Your task to perform on an android device: check out phone information Image 0: 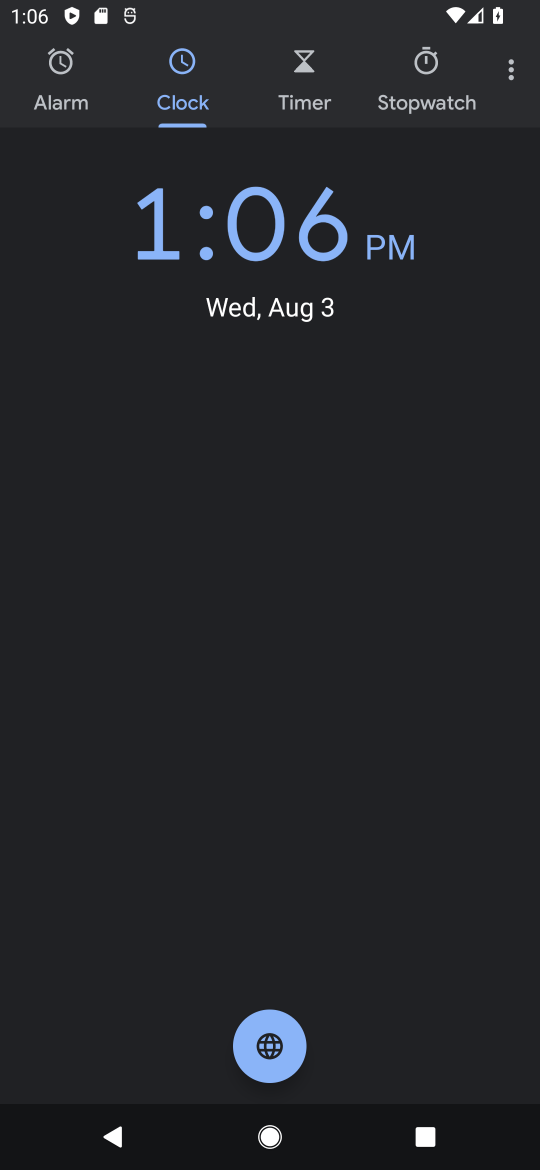
Step 0: press home button
Your task to perform on an android device: check out phone information Image 1: 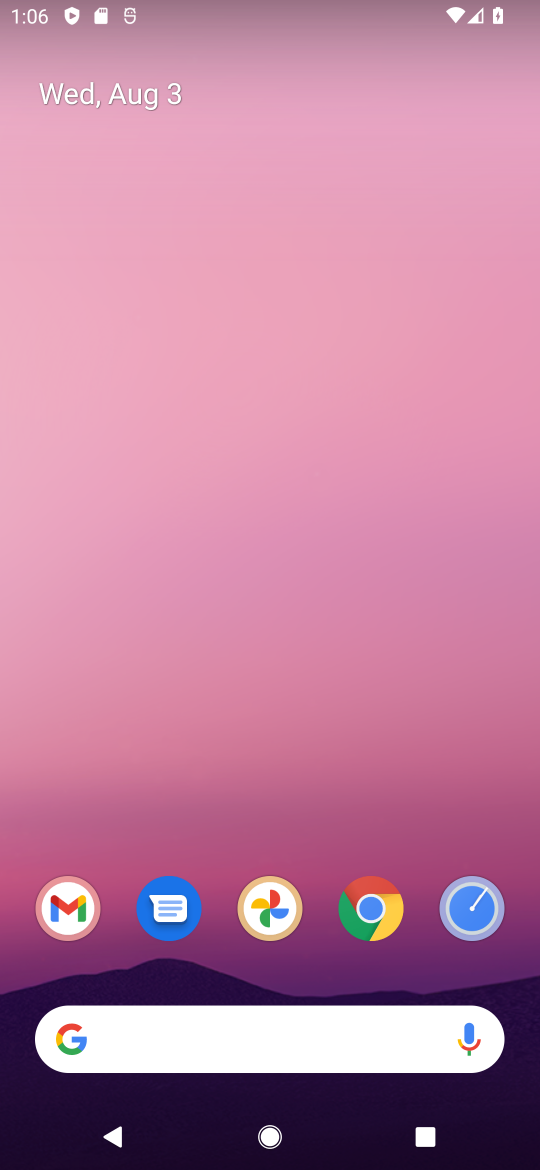
Step 1: drag from (280, 626) to (366, 0)
Your task to perform on an android device: check out phone information Image 2: 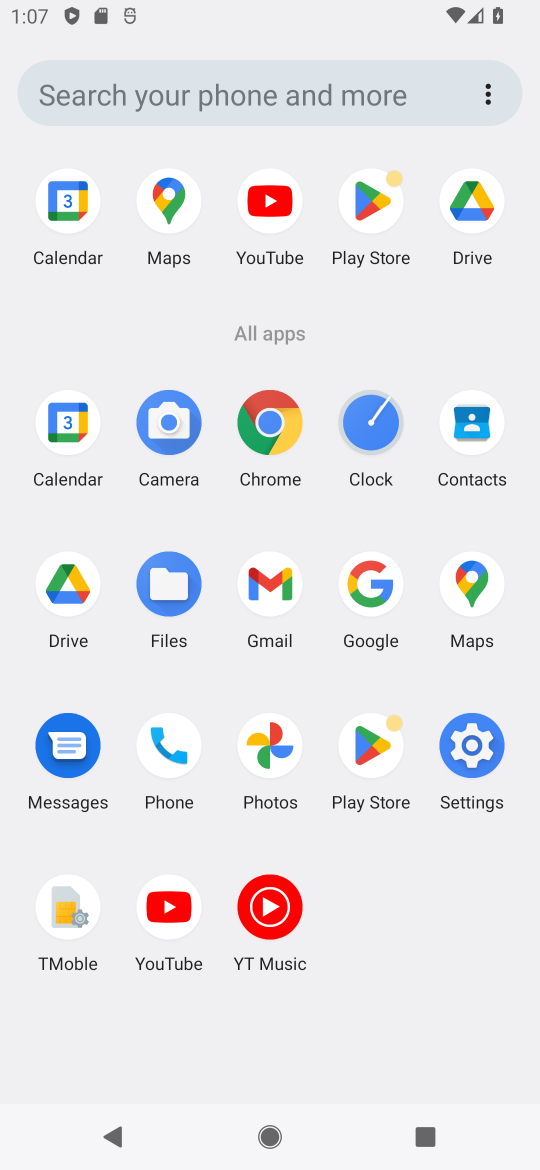
Step 2: click (444, 763)
Your task to perform on an android device: check out phone information Image 3: 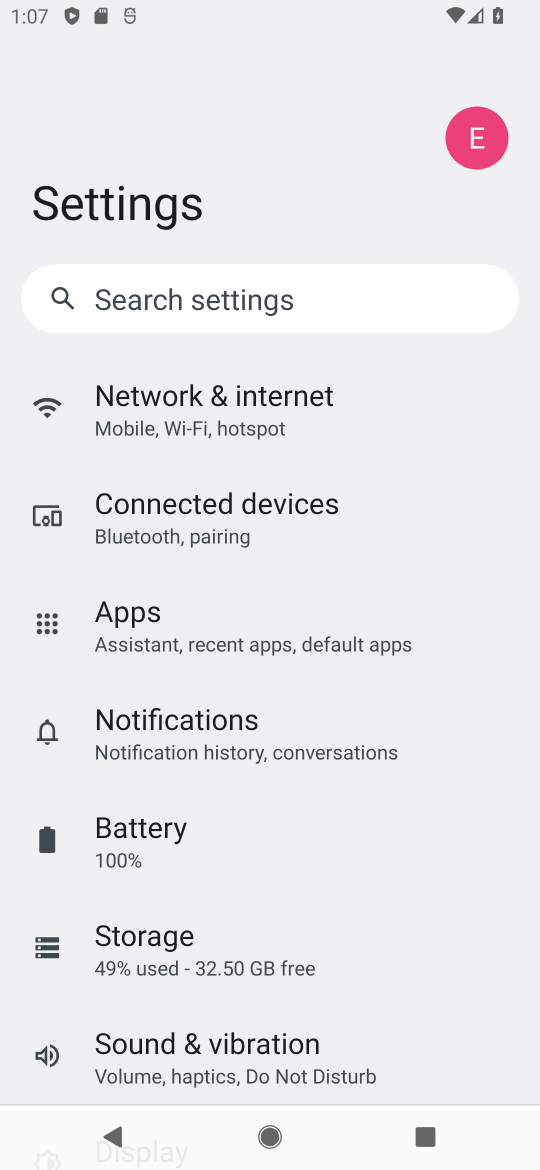
Step 3: drag from (319, 799) to (284, 424)
Your task to perform on an android device: check out phone information Image 4: 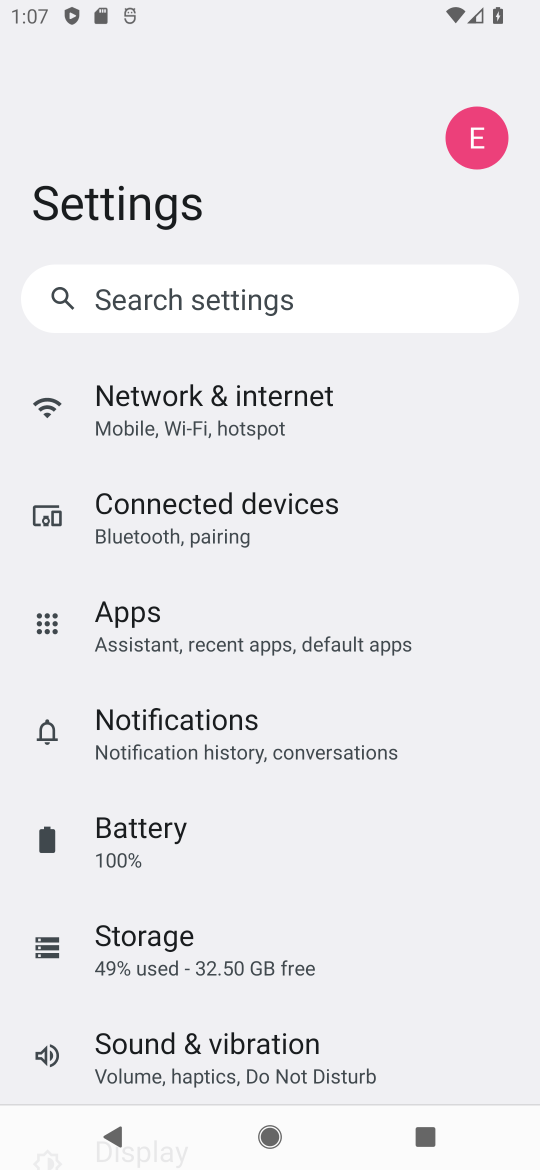
Step 4: drag from (207, 977) to (125, 150)
Your task to perform on an android device: check out phone information Image 5: 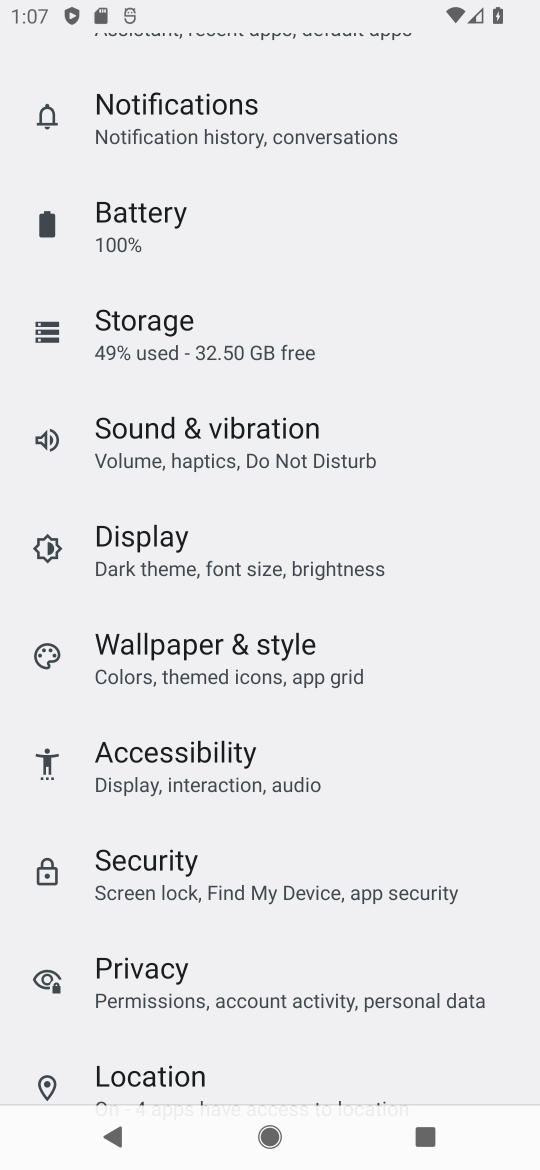
Step 5: click (165, 209)
Your task to perform on an android device: check out phone information Image 6: 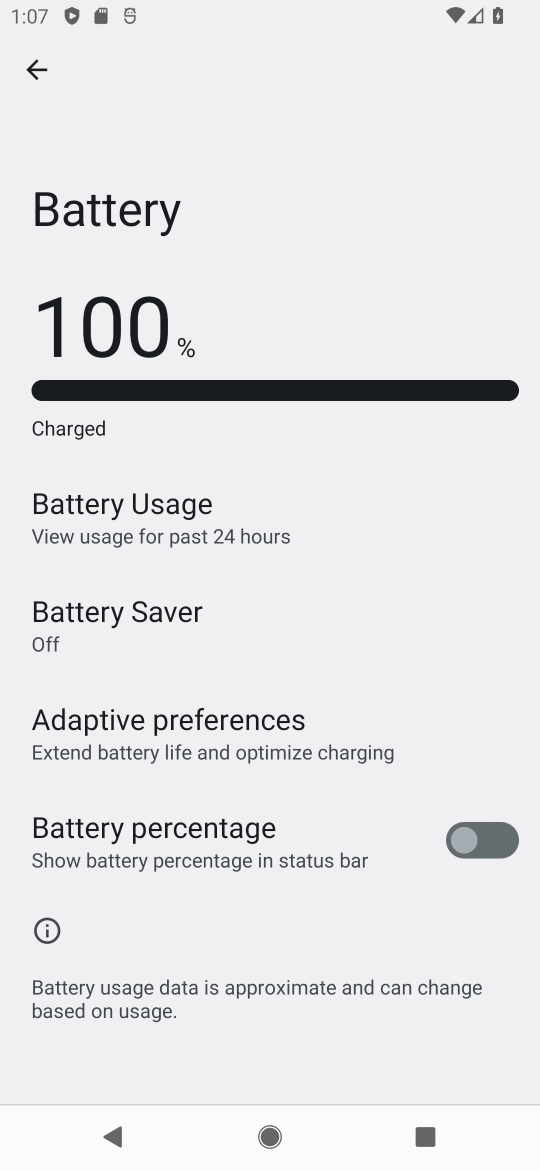
Step 6: click (54, 71)
Your task to perform on an android device: check out phone information Image 7: 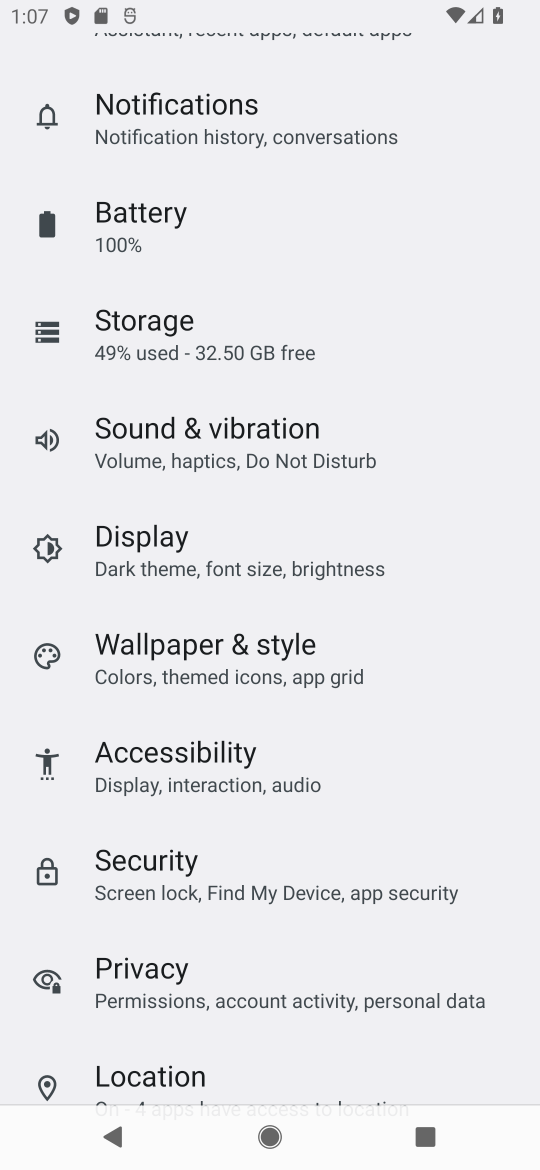
Step 7: drag from (225, 1032) to (208, 518)
Your task to perform on an android device: check out phone information Image 8: 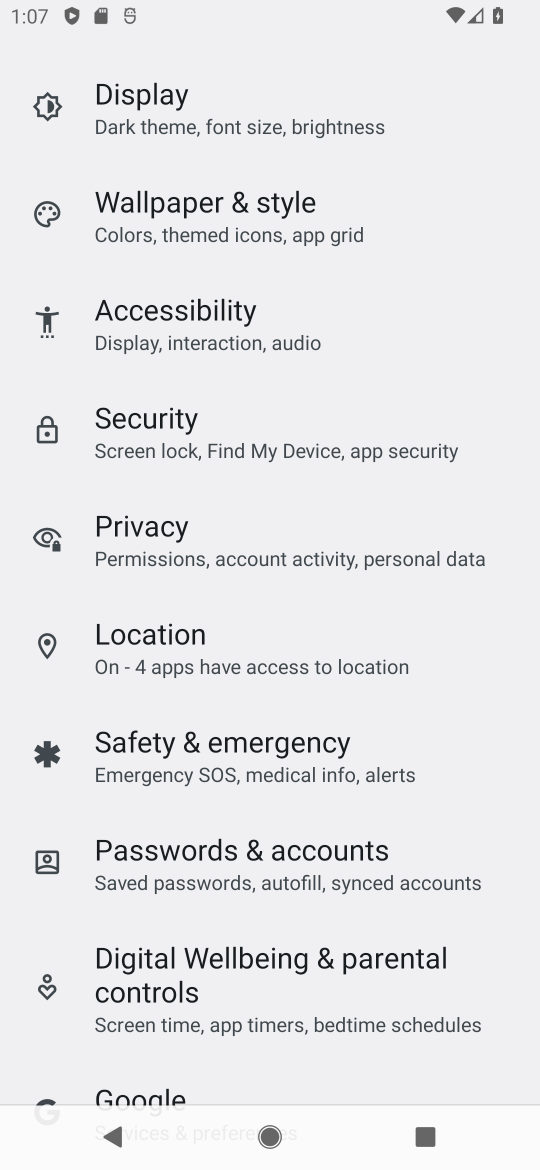
Step 8: drag from (237, 791) to (285, 408)
Your task to perform on an android device: check out phone information Image 9: 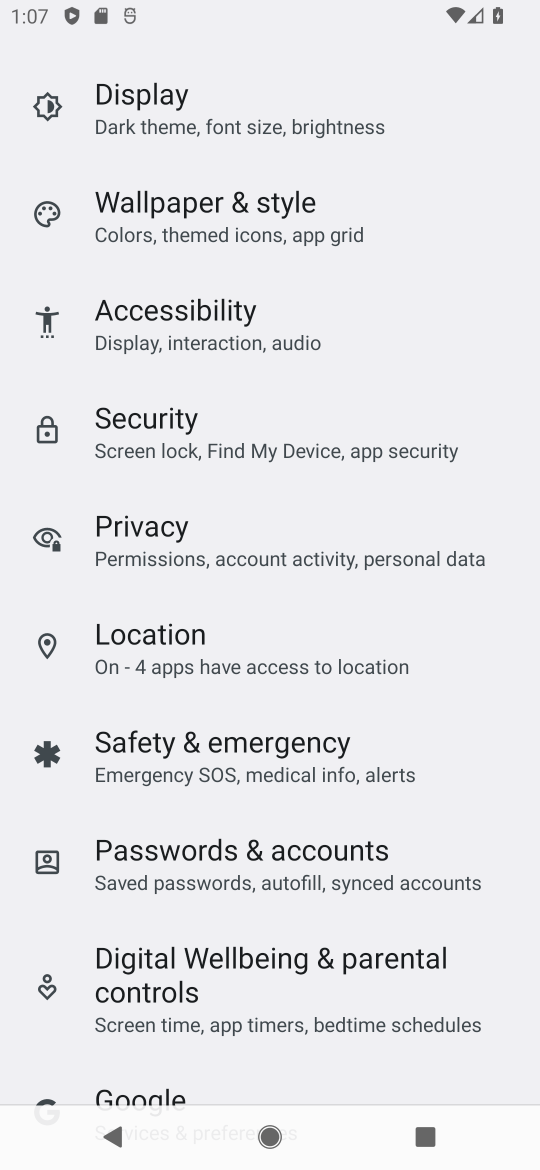
Step 9: drag from (233, 937) to (238, 657)
Your task to perform on an android device: check out phone information Image 10: 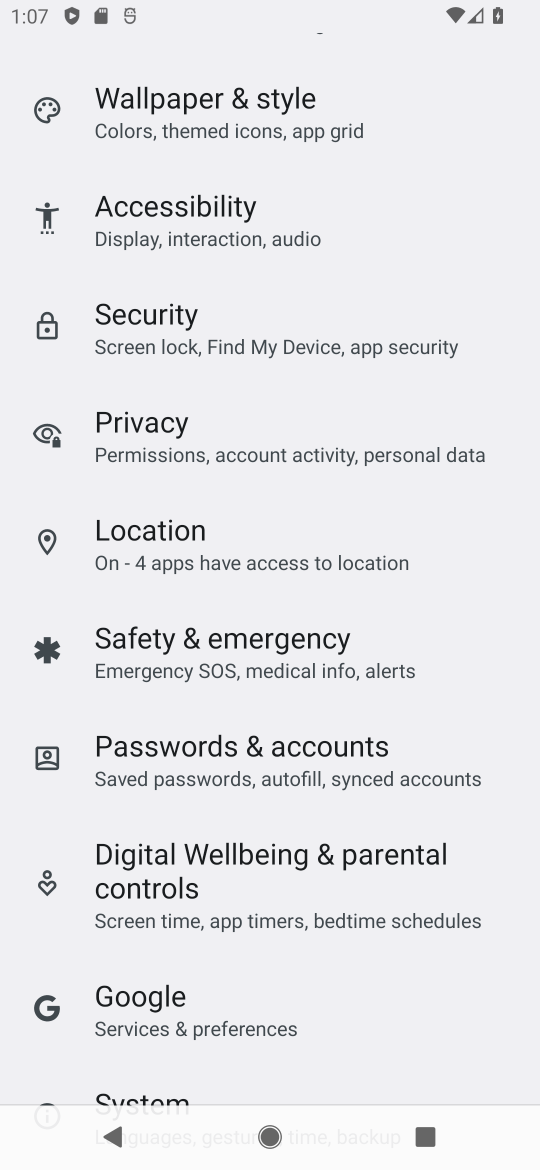
Step 10: drag from (209, 1037) to (292, 415)
Your task to perform on an android device: check out phone information Image 11: 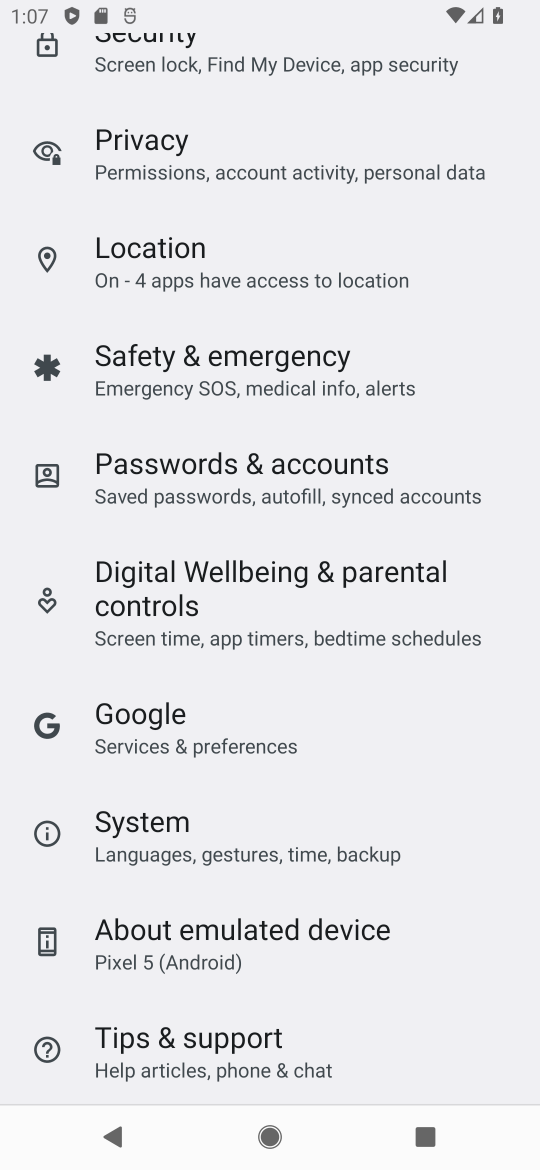
Step 11: drag from (268, 817) to (262, 426)
Your task to perform on an android device: check out phone information Image 12: 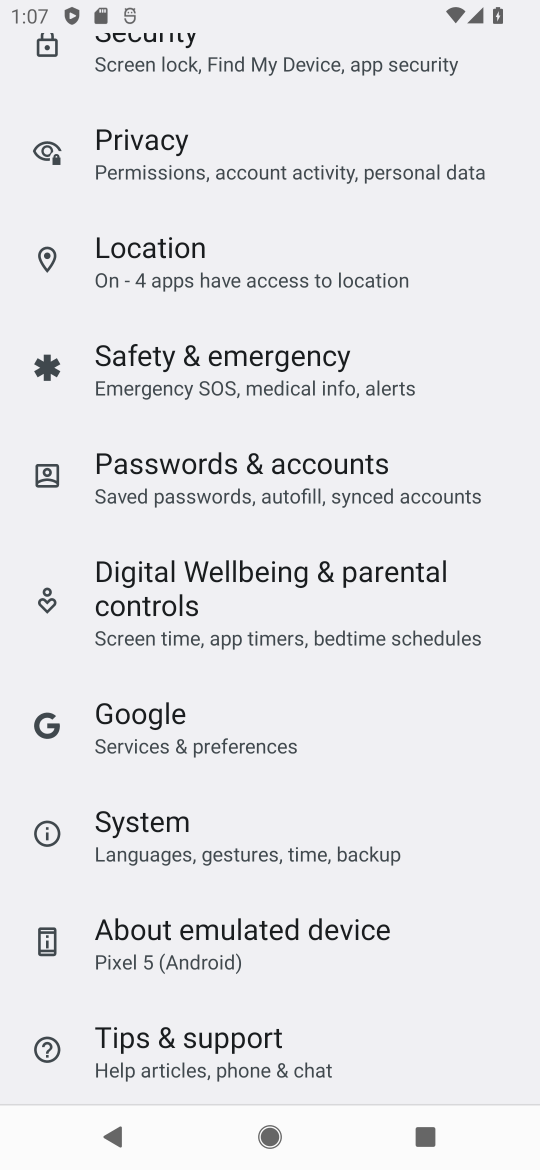
Step 12: click (242, 945)
Your task to perform on an android device: check out phone information Image 13: 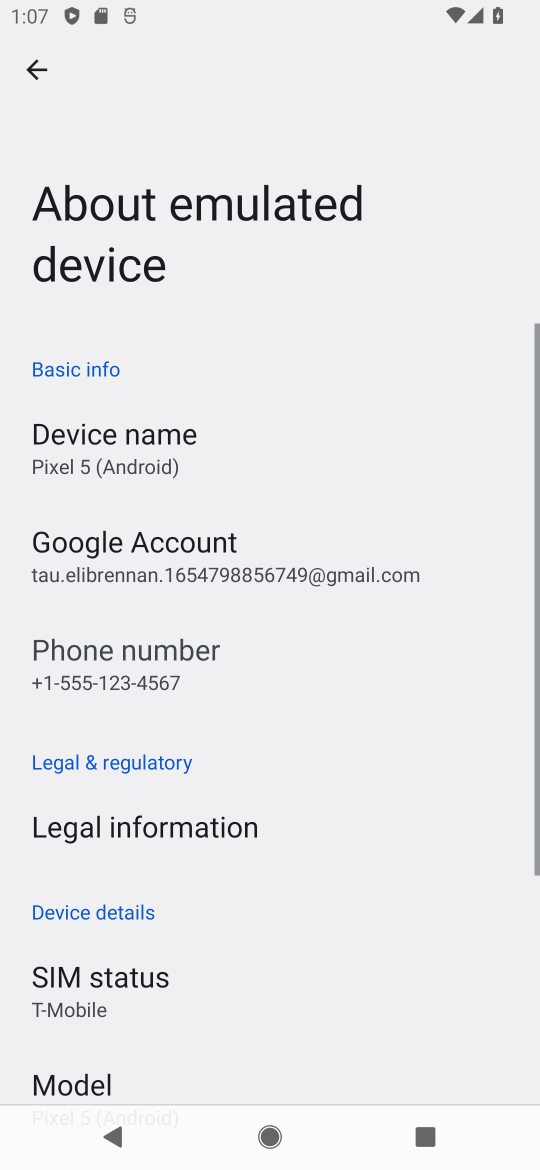
Step 13: task complete